Your task to perform on an android device: What's the US dollar exchange rate against the Brazilian Real? Image 0: 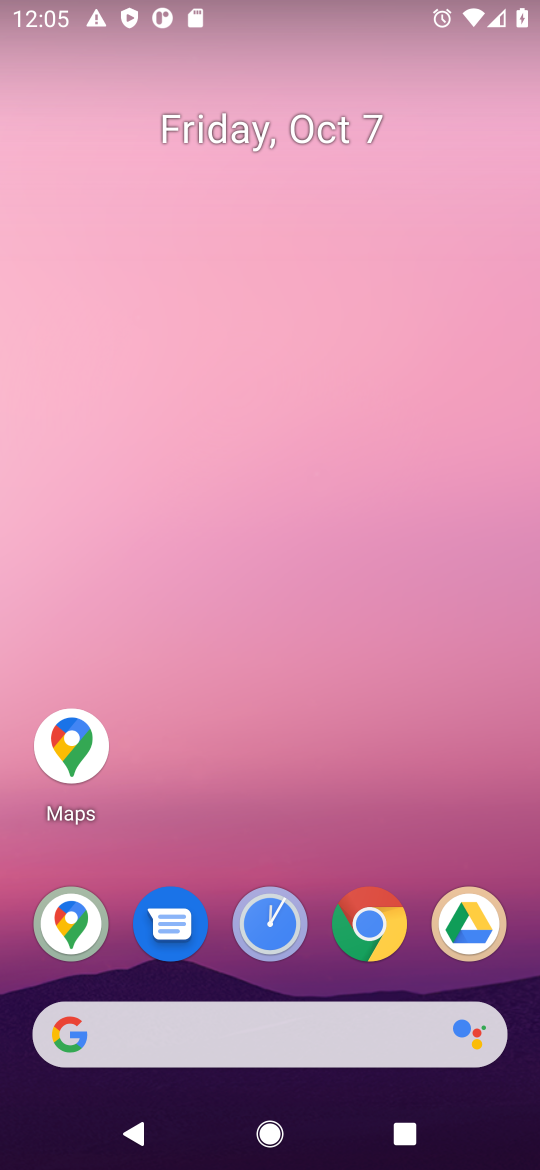
Step 0: click (374, 907)
Your task to perform on an android device: What's the US dollar exchange rate against the Brazilian Real? Image 1: 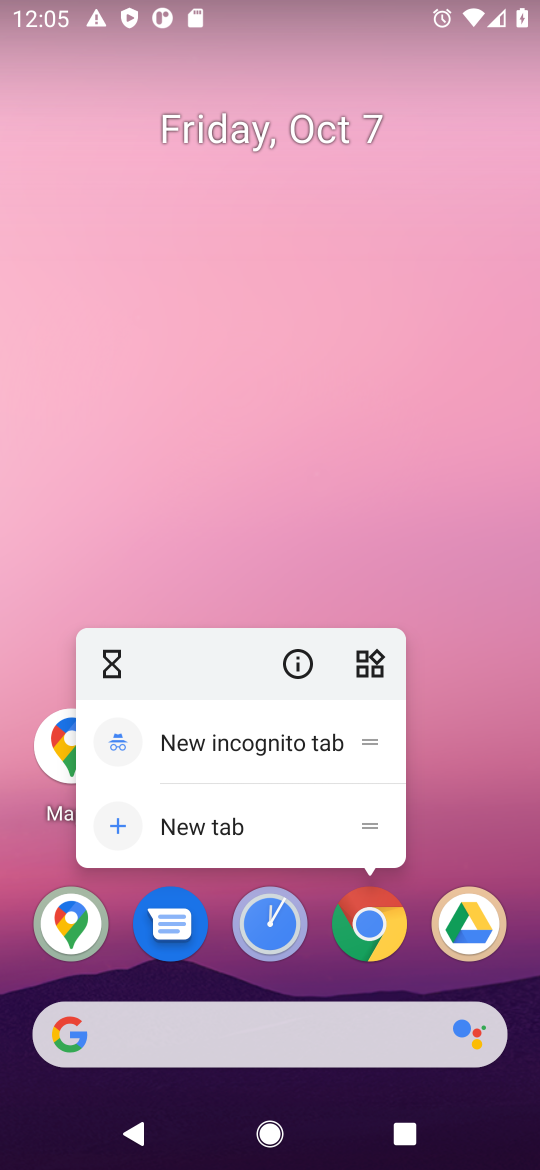
Step 1: click (367, 927)
Your task to perform on an android device: What's the US dollar exchange rate against the Brazilian Real? Image 2: 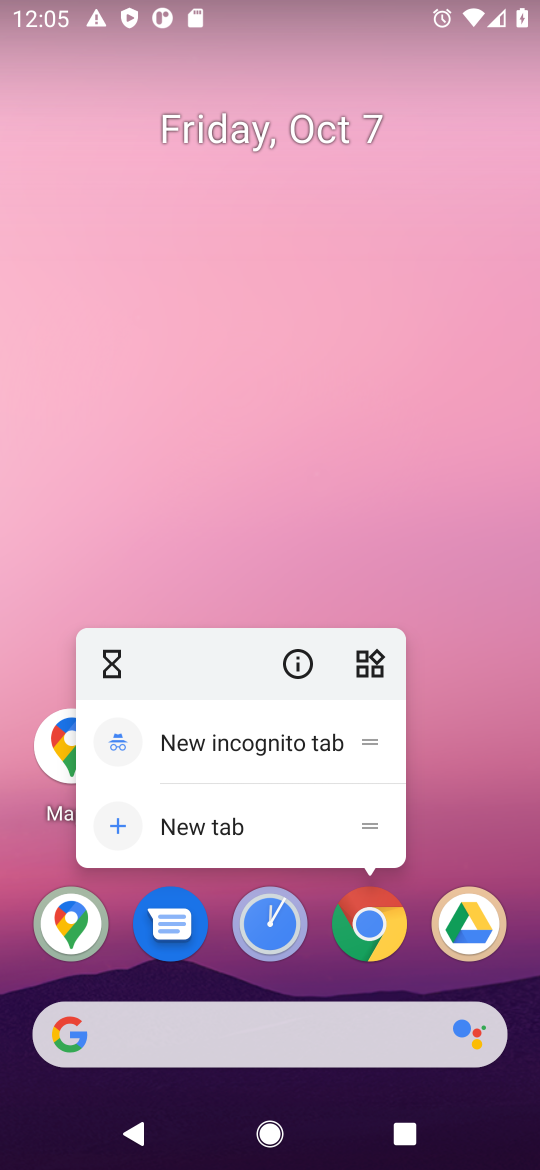
Step 2: click (367, 927)
Your task to perform on an android device: What's the US dollar exchange rate against the Brazilian Real? Image 3: 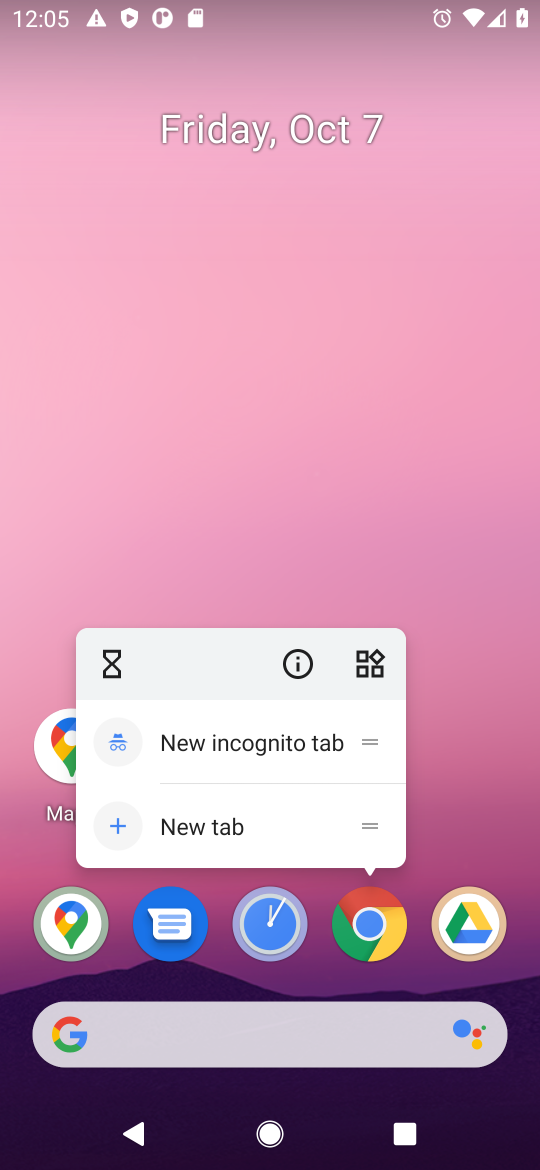
Step 3: click (373, 933)
Your task to perform on an android device: What's the US dollar exchange rate against the Brazilian Real? Image 4: 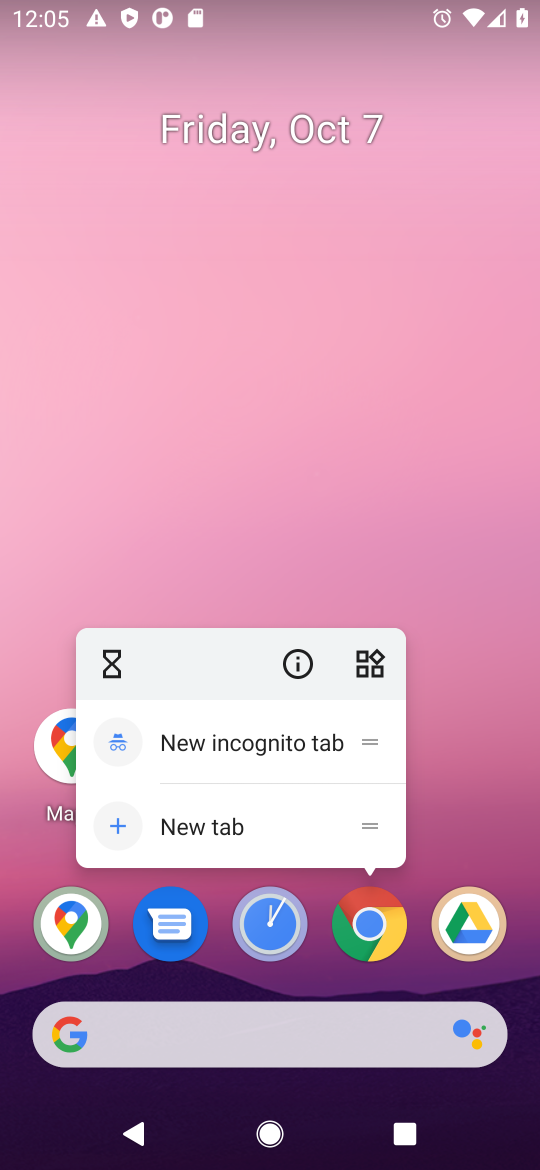
Step 4: click (373, 936)
Your task to perform on an android device: What's the US dollar exchange rate against the Brazilian Real? Image 5: 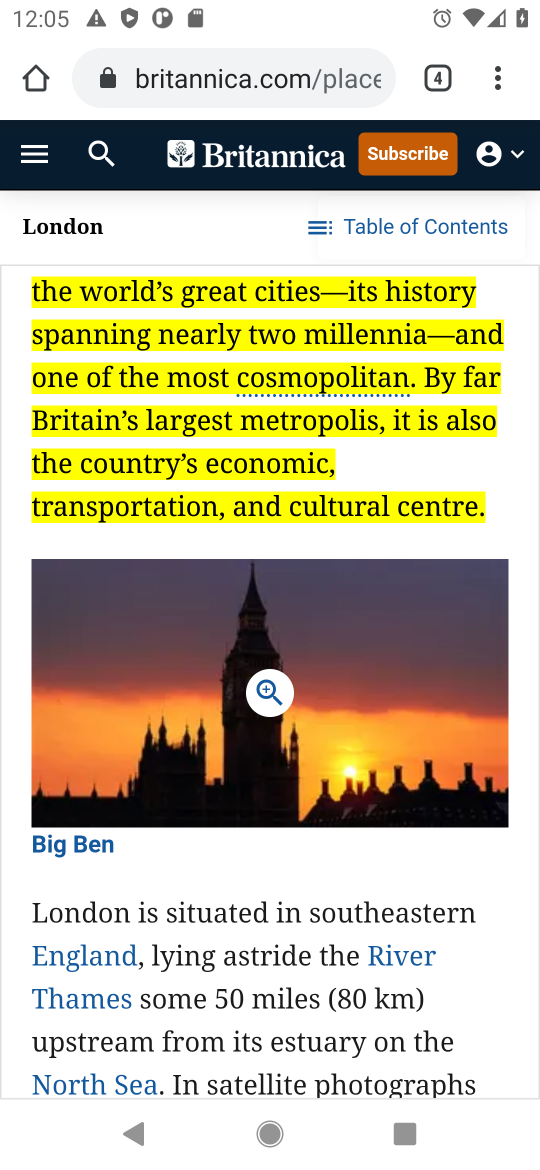
Step 5: click (330, 70)
Your task to perform on an android device: What's the US dollar exchange rate against the Brazilian Real? Image 6: 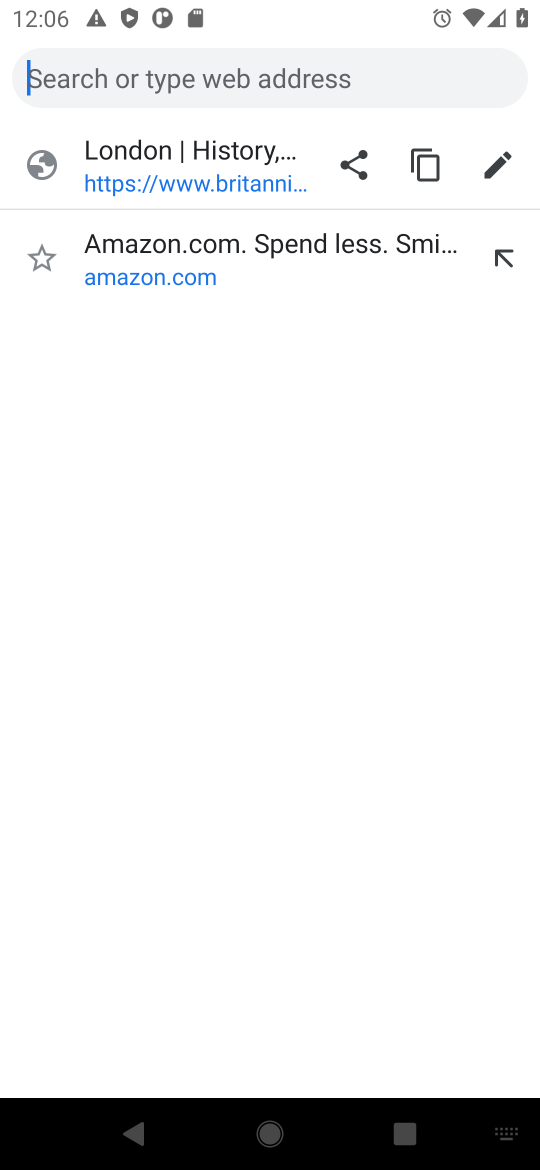
Step 6: type "US dollar exchange rate against the Brazilian Real"
Your task to perform on an android device: What's the US dollar exchange rate against the Brazilian Real? Image 7: 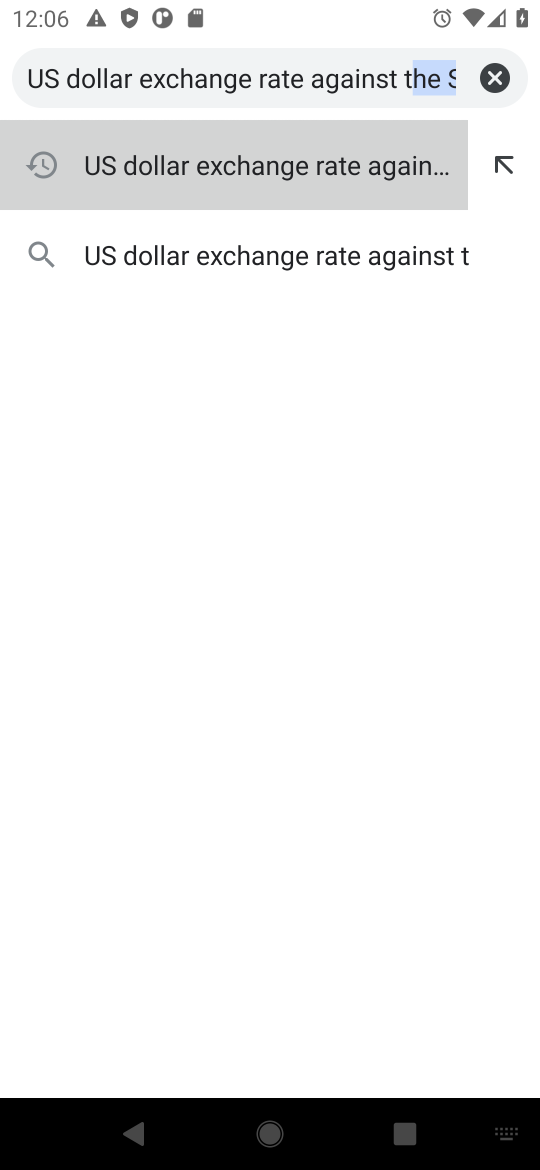
Step 7: click (273, 189)
Your task to perform on an android device: What's the US dollar exchange rate against the Brazilian Real? Image 8: 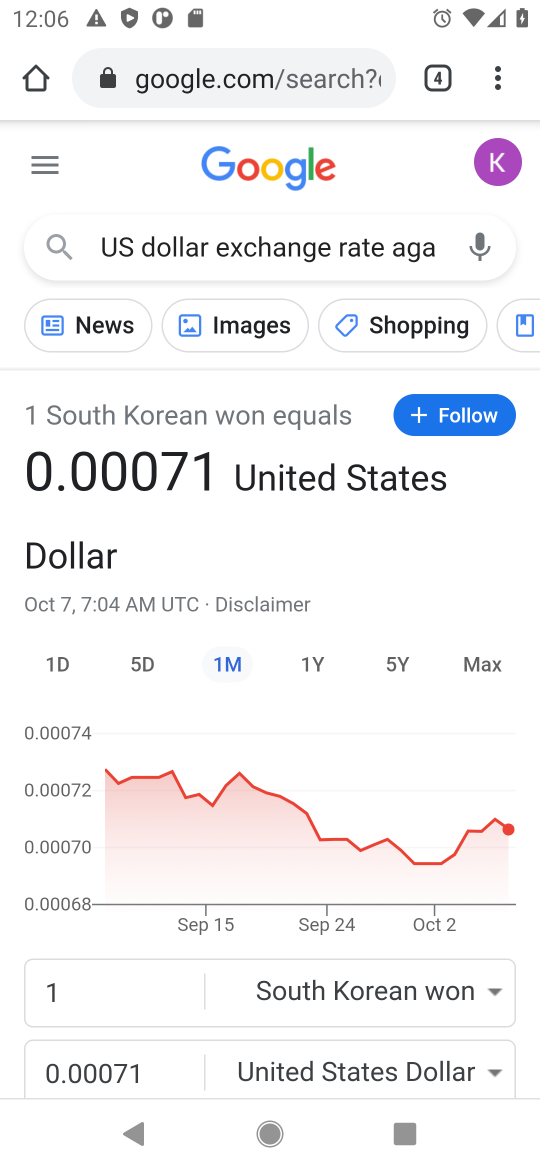
Step 8: task complete